Your task to perform on an android device: Play the last video I watched on Youtube Image 0: 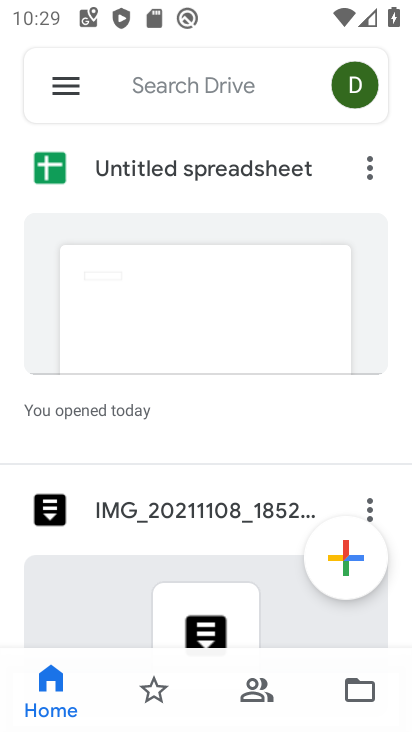
Step 0: press home button
Your task to perform on an android device: Play the last video I watched on Youtube Image 1: 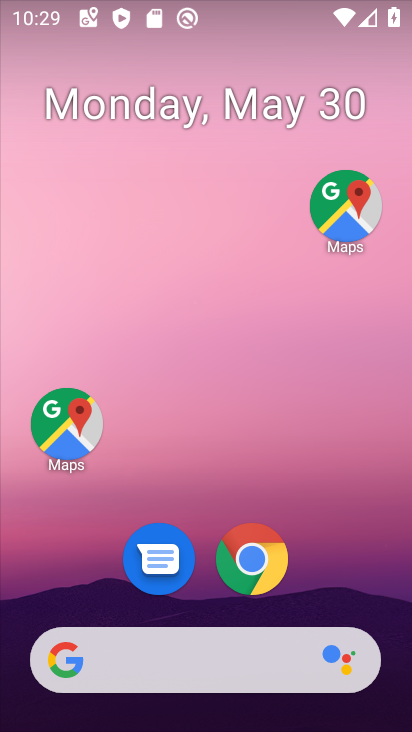
Step 1: drag from (379, 527) to (296, 73)
Your task to perform on an android device: Play the last video I watched on Youtube Image 2: 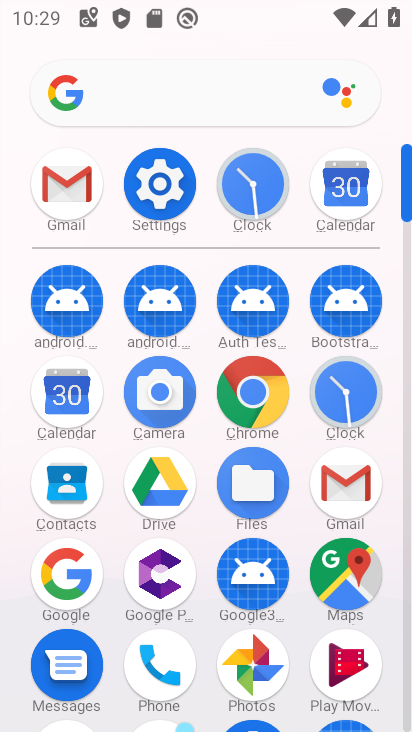
Step 2: drag from (297, 526) to (302, 143)
Your task to perform on an android device: Play the last video I watched on Youtube Image 3: 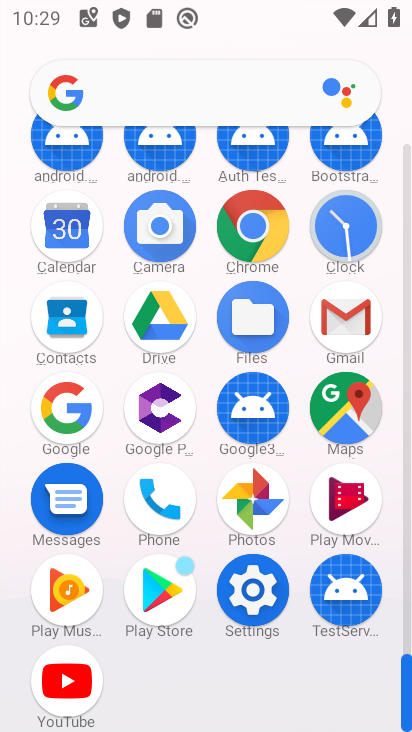
Step 3: click (69, 680)
Your task to perform on an android device: Play the last video I watched on Youtube Image 4: 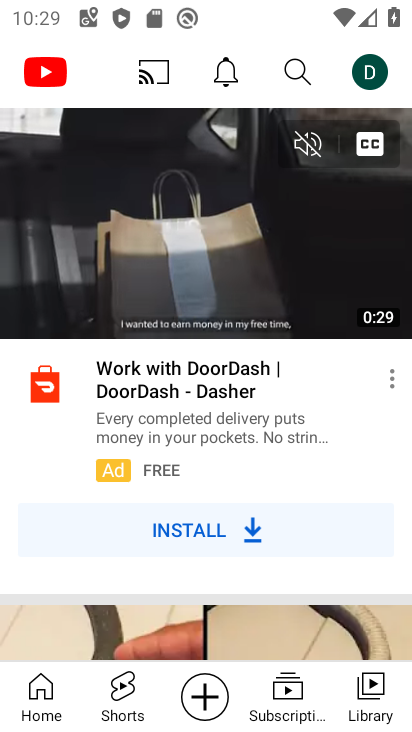
Step 4: click (363, 695)
Your task to perform on an android device: Play the last video I watched on Youtube Image 5: 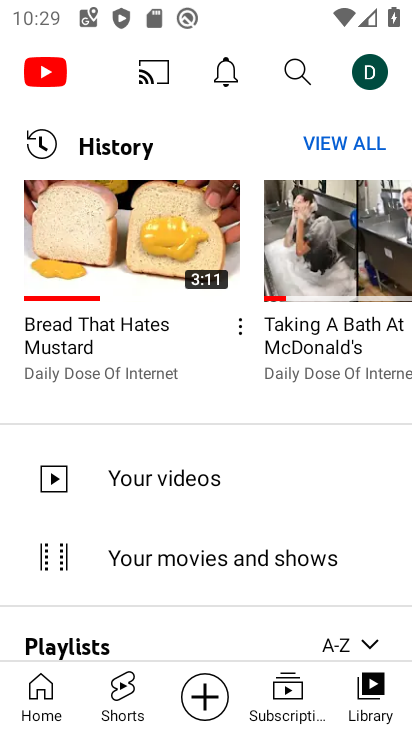
Step 5: click (137, 266)
Your task to perform on an android device: Play the last video I watched on Youtube Image 6: 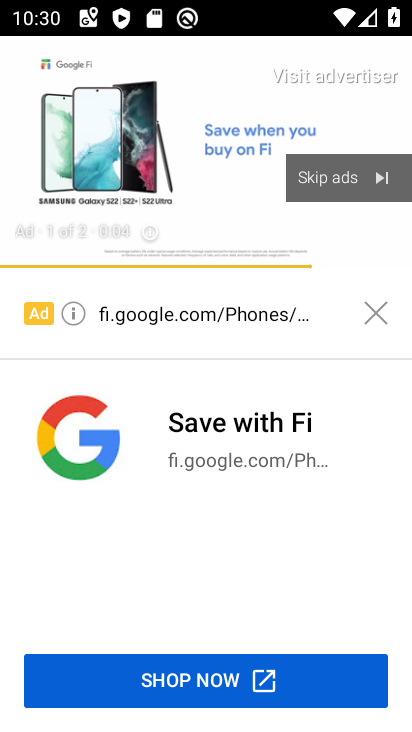
Step 6: click (314, 166)
Your task to perform on an android device: Play the last video I watched on Youtube Image 7: 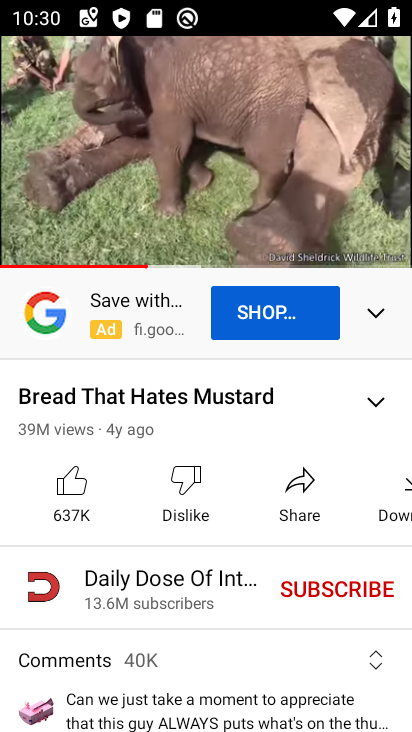
Step 7: task complete